Your task to perform on an android device: Go to internet settings Image 0: 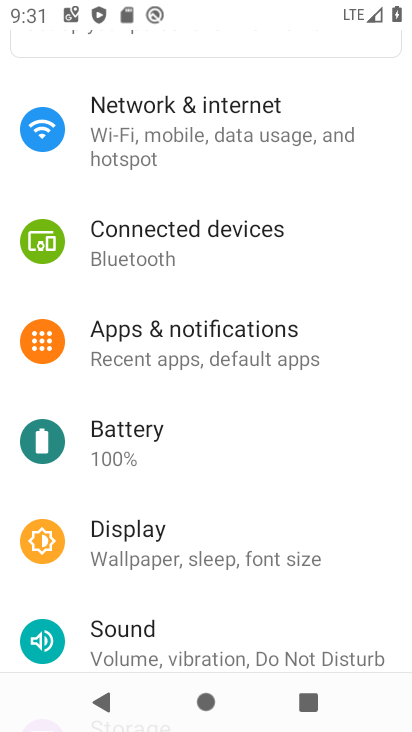
Step 0: click (244, 132)
Your task to perform on an android device: Go to internet settings Image 1: 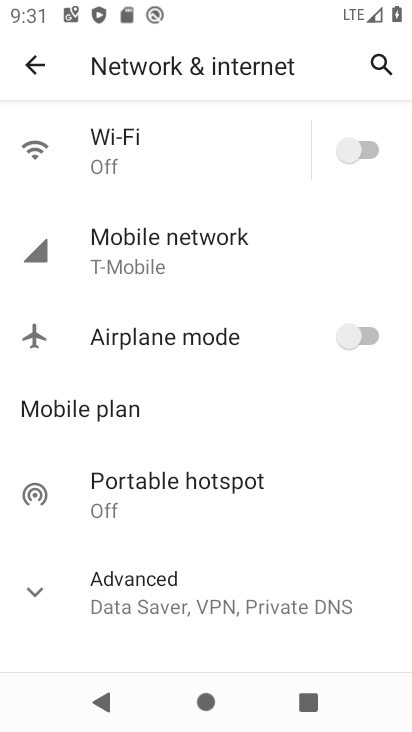
Step 1: task complete